Your task to perform on an android device: turn on the 12-hour format for clock Image 0: 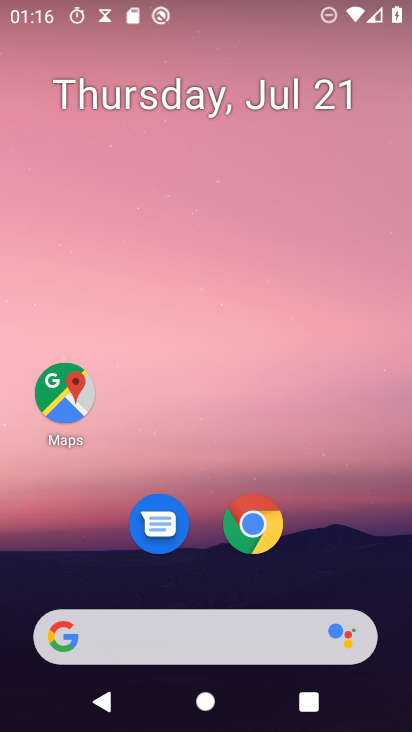
Step 0: press home button
Your task to perform on an android device: turn on the 12-hour format for clock Image 1: 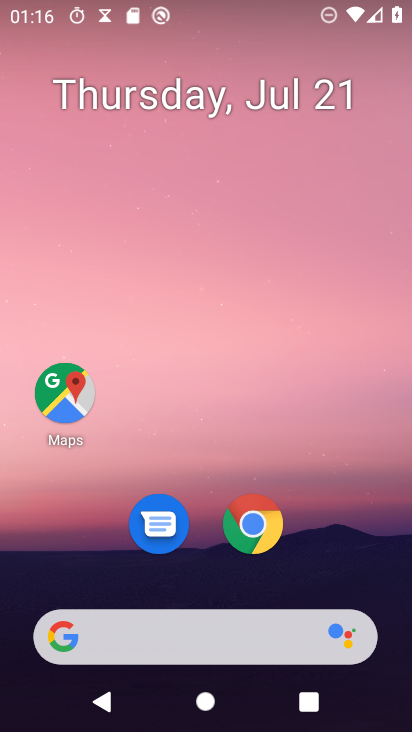
Step 1: drag from (204, 623) to (264, 138)
Your task to perform on an android device: turn on the 12-hour format for clock Image 2: 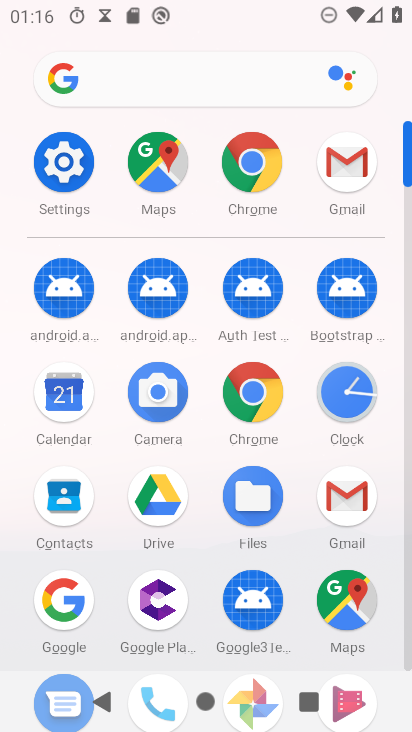
Step 2: click (333, 391)
Your task to perform on an android device: turn on the 12-hour format for clock Image 3: 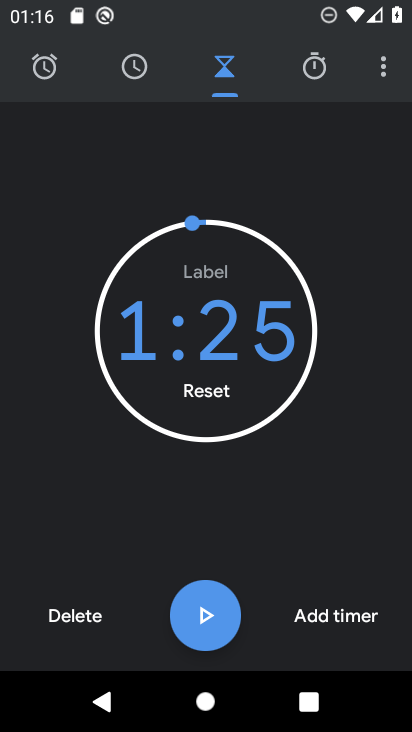
Step 3: click (386, 82)
Your task to perform on an android device: turn on the 12-hour format for clock Image 4: 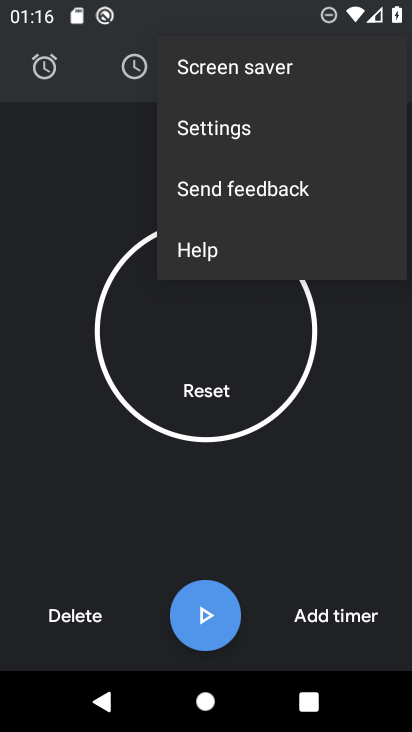
Step 4: click (212, 131)
Your task to perform on an android device: turn on the 12-hour format for clock Image 5: 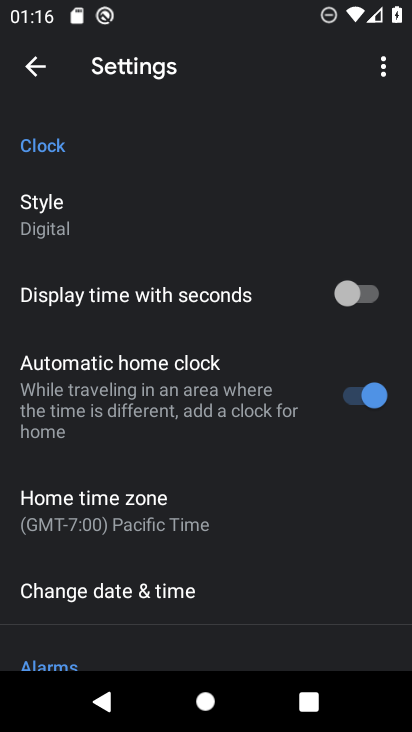
Step 5: click (151, 588)
Your task to perform on an android device: turn on the 12-hour format for clock Image 6: 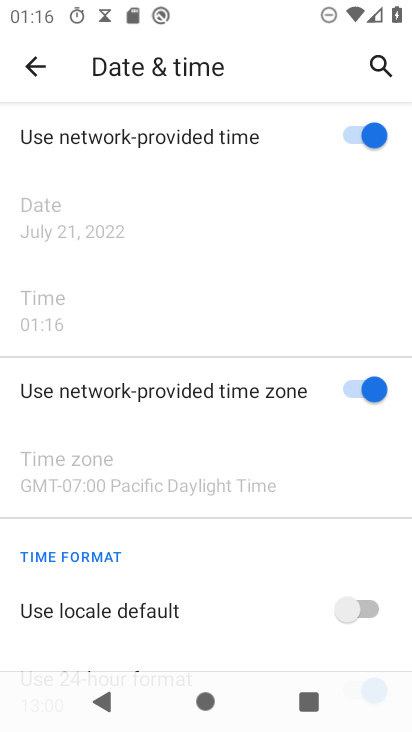
Step 6: drag from (206, 620) to (252, 417)
Your task to perform on an android device: turn on the 12-hour format for clock Image 7: 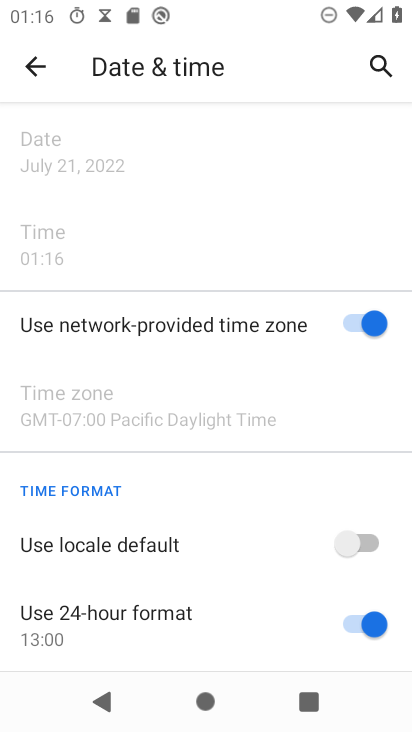
Step 7: click (365, 543)
Your task to perform on an android device: turn on the 12-hour format for clock Image 8: 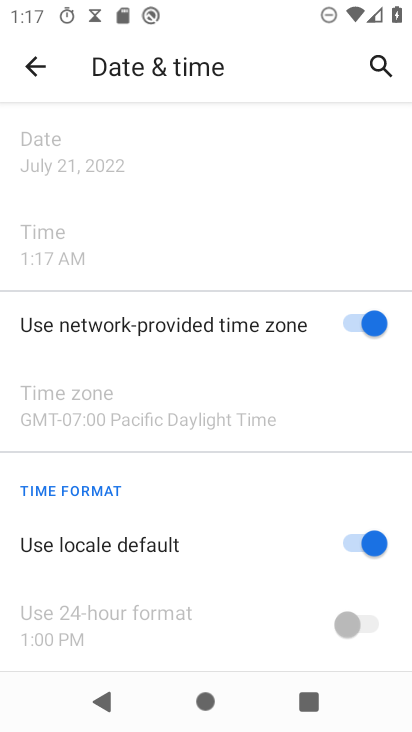
Step 8: task complete